Your task to perform on an android device: Open Youtube and go to the subscriptions tab Image 0: 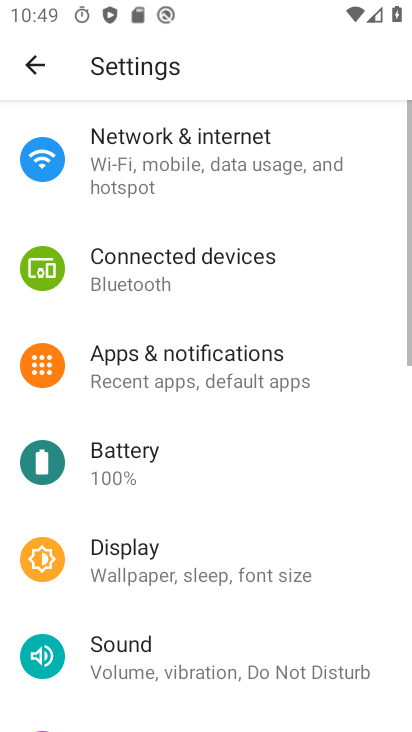
Step 0: click (22, 66)
Your task to perform on an android device: Open Youtube and go to the subscriptions tab Image 1: 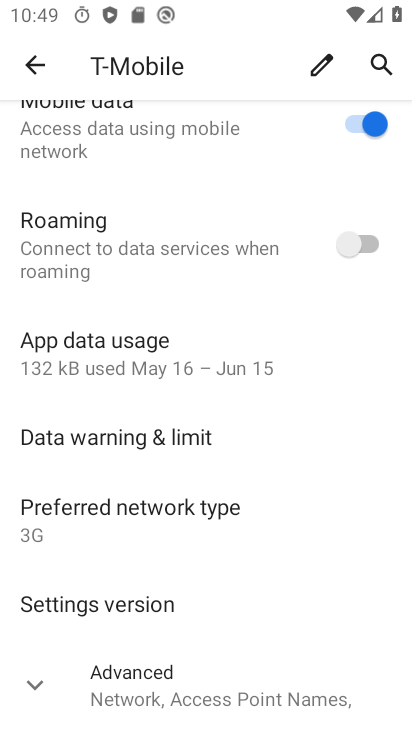
Step 1: press back button
Your task to perform on an android device: Open Youtube and go to the subscriptions tab Image 2: 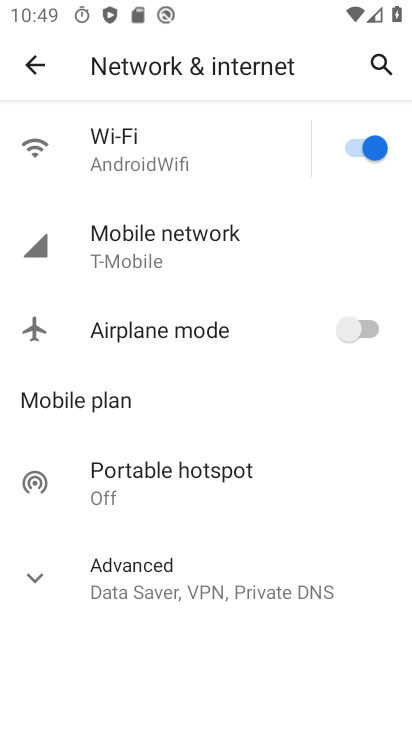
Step 2: click (31, 62)
Your task to perform on an android device: Open Youtube and go to the subscriptions tab Image 3: 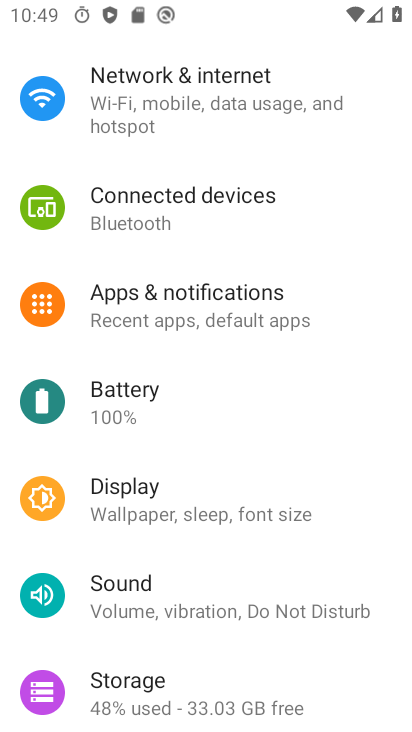
Step 3: press home button
Your task to perform on an android device: Open Youtube and go to the subscriptions tab Image 4: 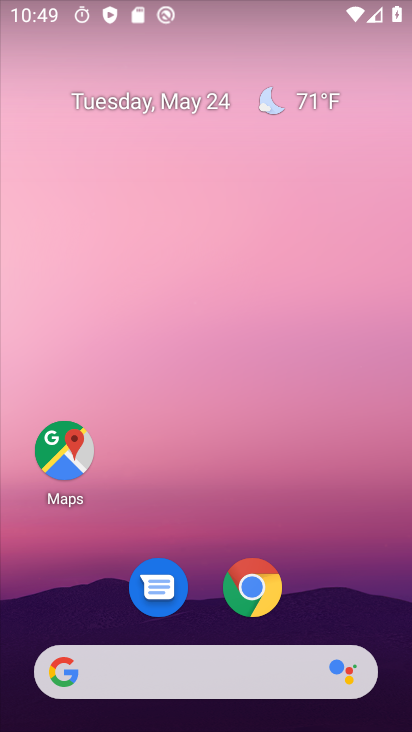
Step 4: drag from (376, 689) to (125, 229)
Your task to perform on an android device: Open Youtube and go to the subscriptions tab Image 5: 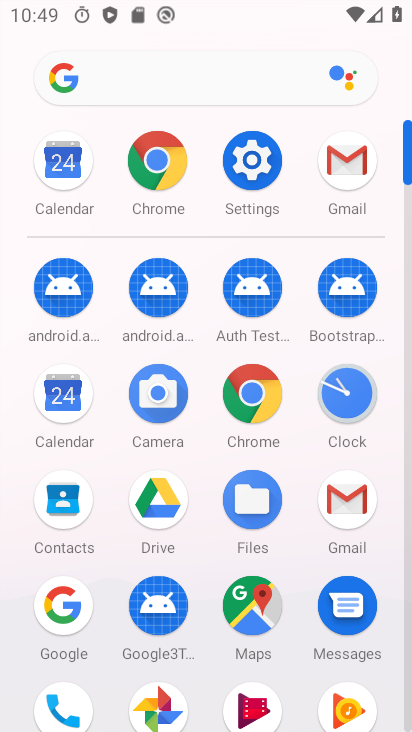
Step 5: drag from (307, 620) to (170, 189)
Your task to perform on an android device: Open Youtube and go to the subscriptions tab Image 6: 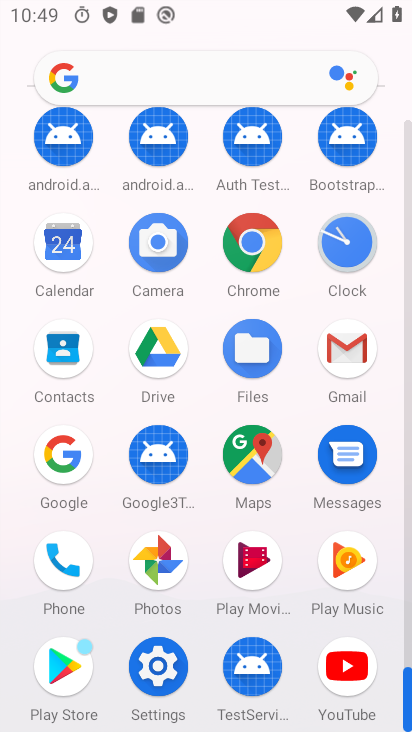
Step 6: click (344, 654)
Your task to perform on an android device: Open Youtube and go to the subscriptions tab Image 7: 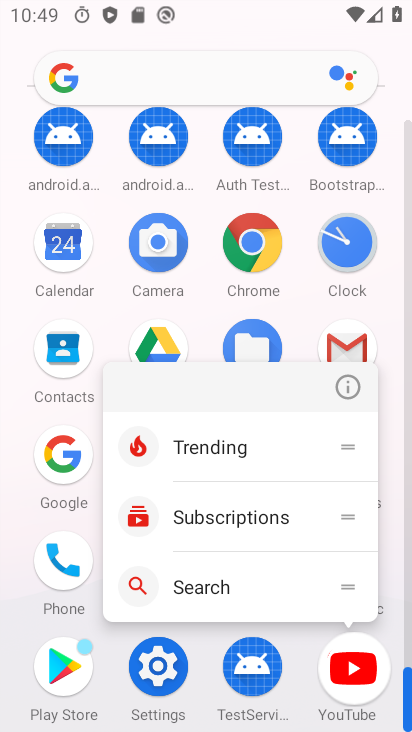
Step 7: click (352, 657)
Your task to perform on an android device: Open Youtube and go to the subscriptions tab Image 8: 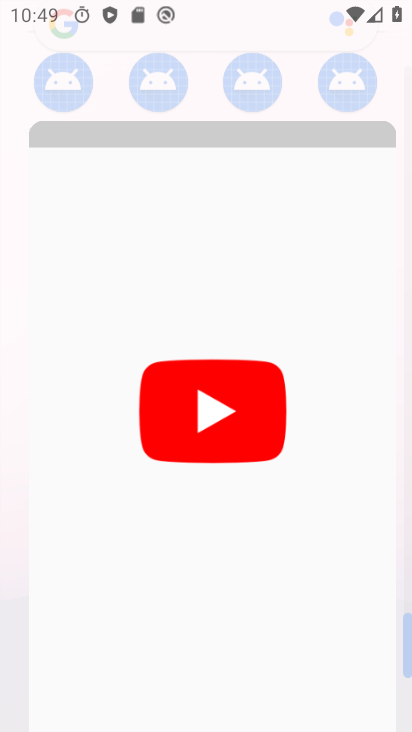
Step 8: click (352, 657)
Your task to perform on an android device: Open Youtube and go to the subscriptions tab Image 9: 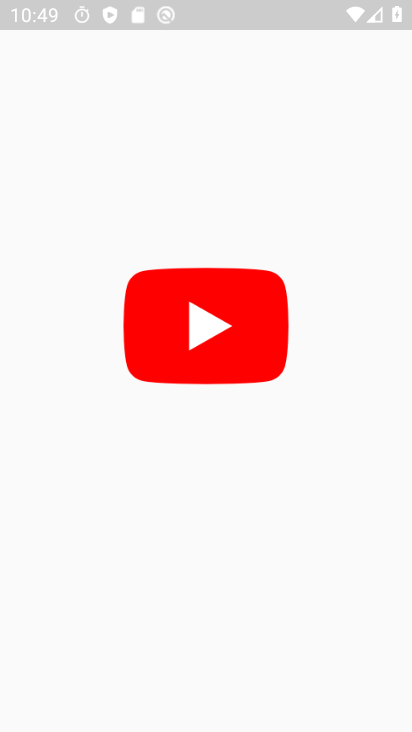
Step 9: click (352, 657)
Your task to perform on an android device: Open Youtube and go to the subscriptions tab Image 10: 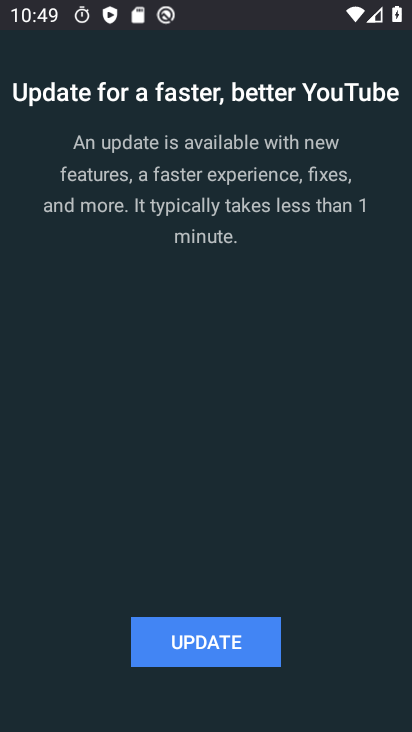
Step 10: click (206, 648)
Your task to perform on an android device: Open Youtube and go to the subscriptions tab Image 11: 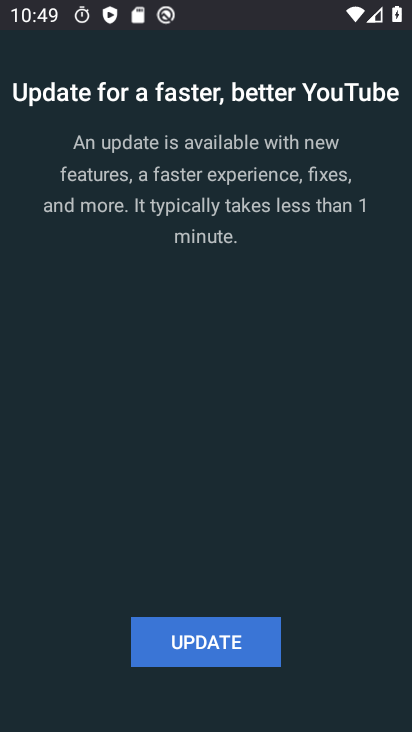
Step 11: click (209, 646)
Your task to perform on an android device: Open Youtube and go to the subscriptions tab Image 12: 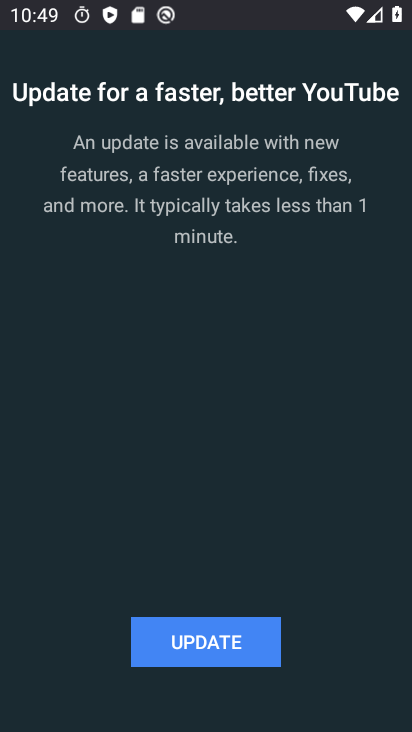
Step 12: click (210, 645)
Your task to perform on an android device: Open Youtube and go to the subscriptions tab Image 13: 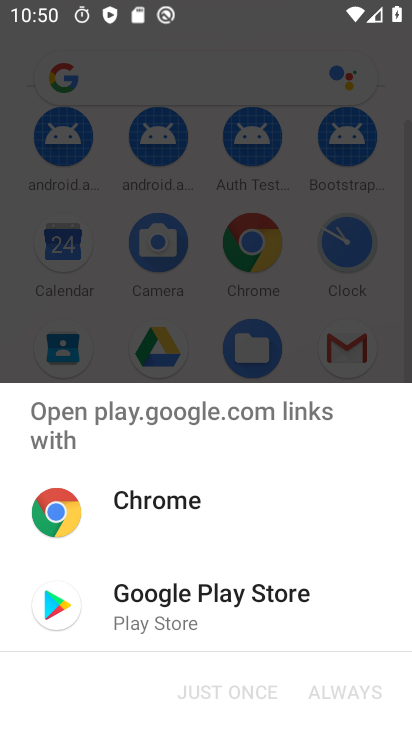
Step 13: click (153, 606)
Your task to perform on an android device: Open Youtube and go to the subscriptions tab Image 14: 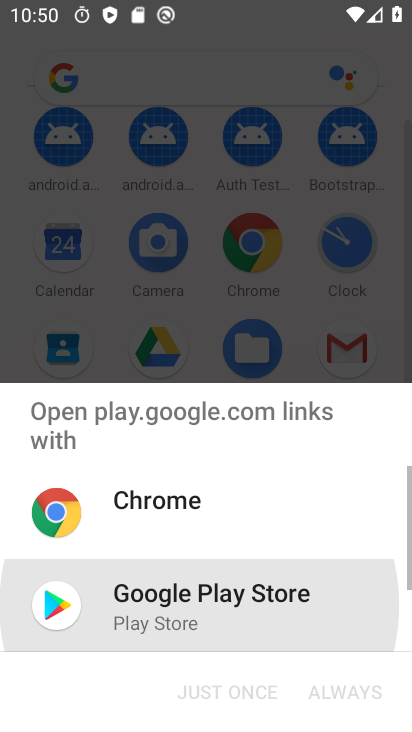
Step 14: click (152, 607)
Your task to perform on an android device: Open Youtube and go to the subscriptions tab Image 15: 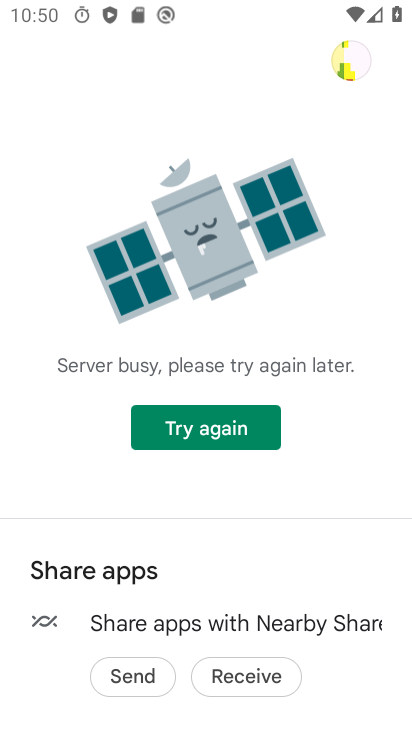
Step 15: task complete